Your task to perform on an android device: turn off priority inbox in the gmail app Image 0: 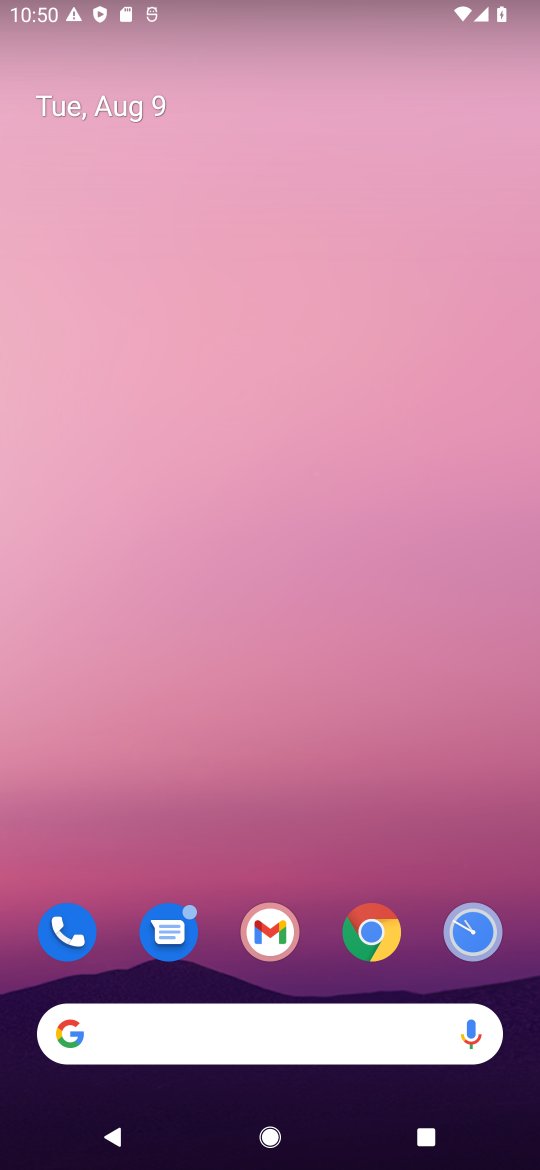
Step 0: drag from (247, 915) to (164, 2)
Your task to perform on an android device: turn off priority inbox in the gmail app Image 1: 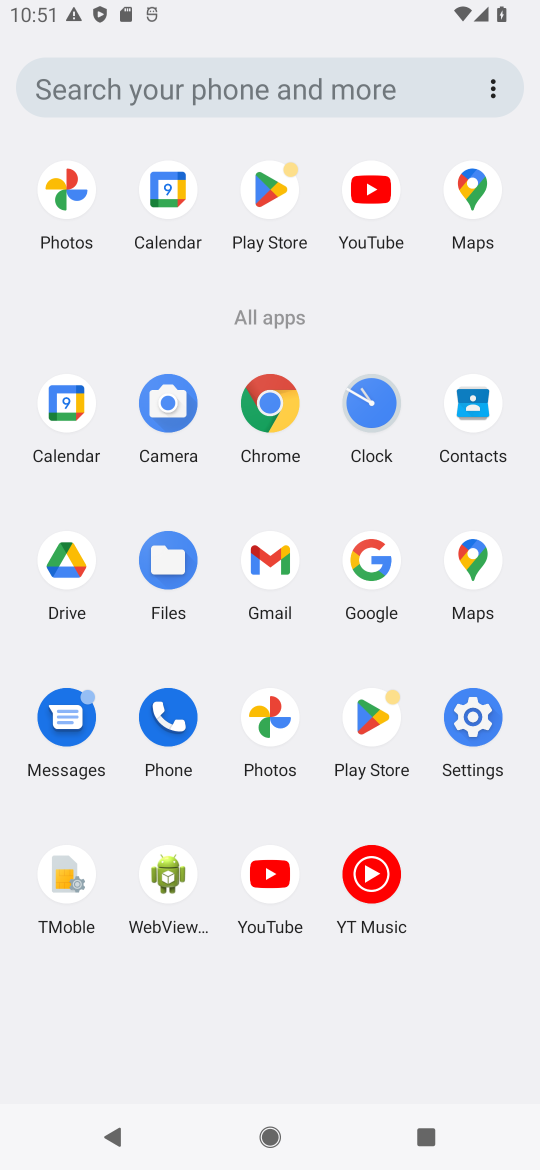
Step 1: click (279, 592)
Your task to perform on an android device: turn off priority inbox in the gmail app Image 2: 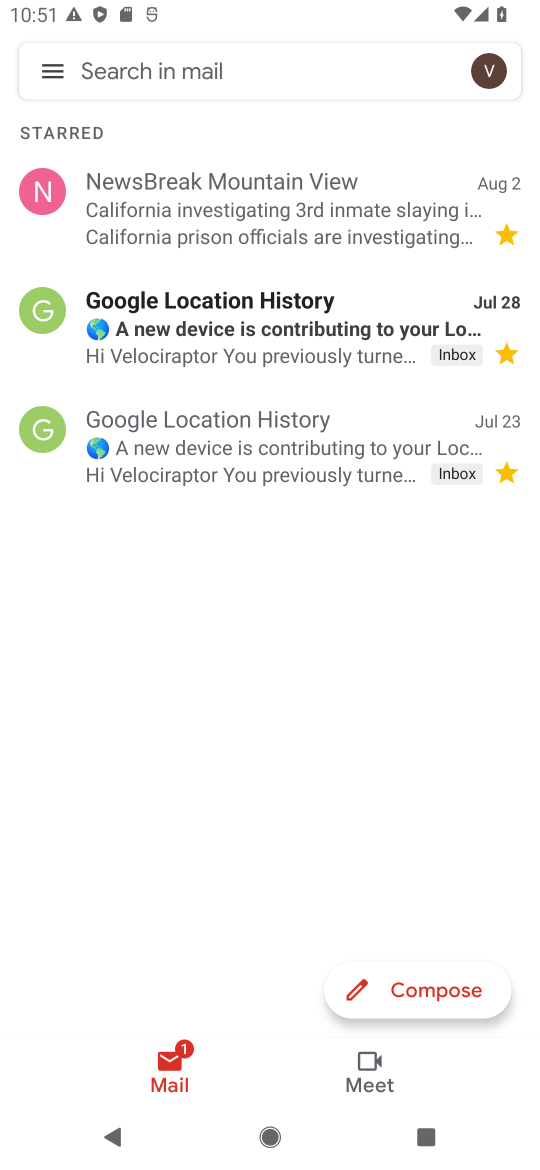
Step 2: click (58, 71)
Your task to perform on an android device: turn off priority inbox in the gmail app Image 3: 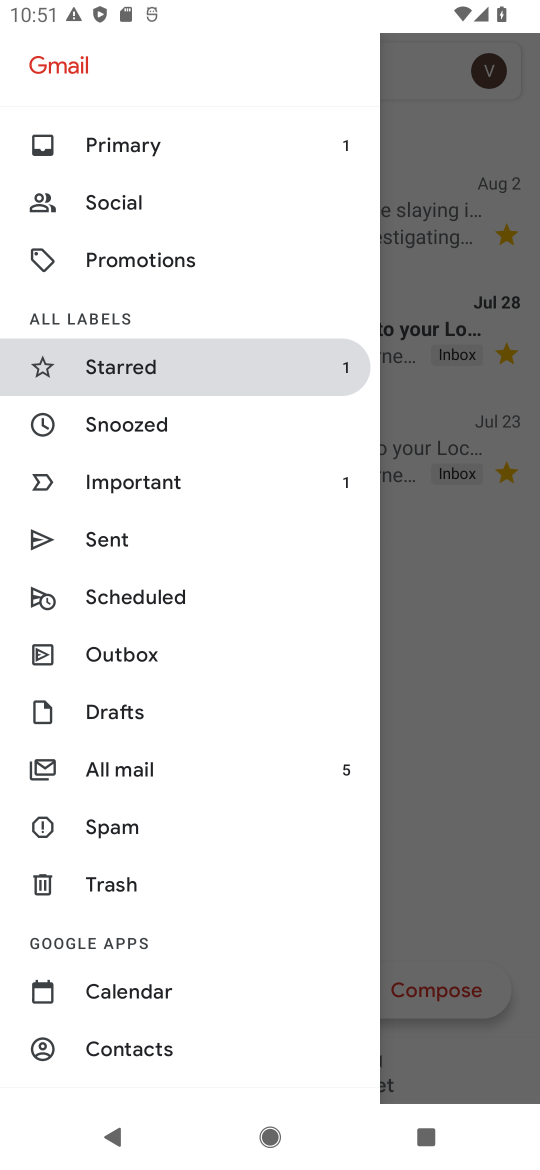
Step 3: drag from (107, 963) to (204, 114)
Your task to perform on an android device: turn off priority inbox in the gmail app Image 4: 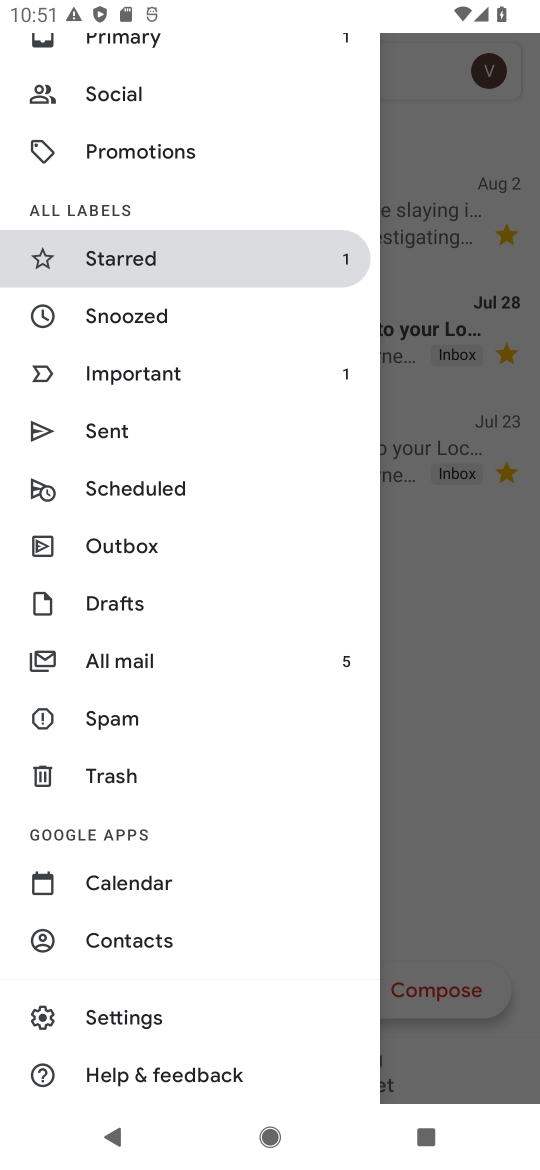
Step 4: click (126, 1026)
Your task to perform on an android device: turn off priority inbox in the gmail app Image 5: 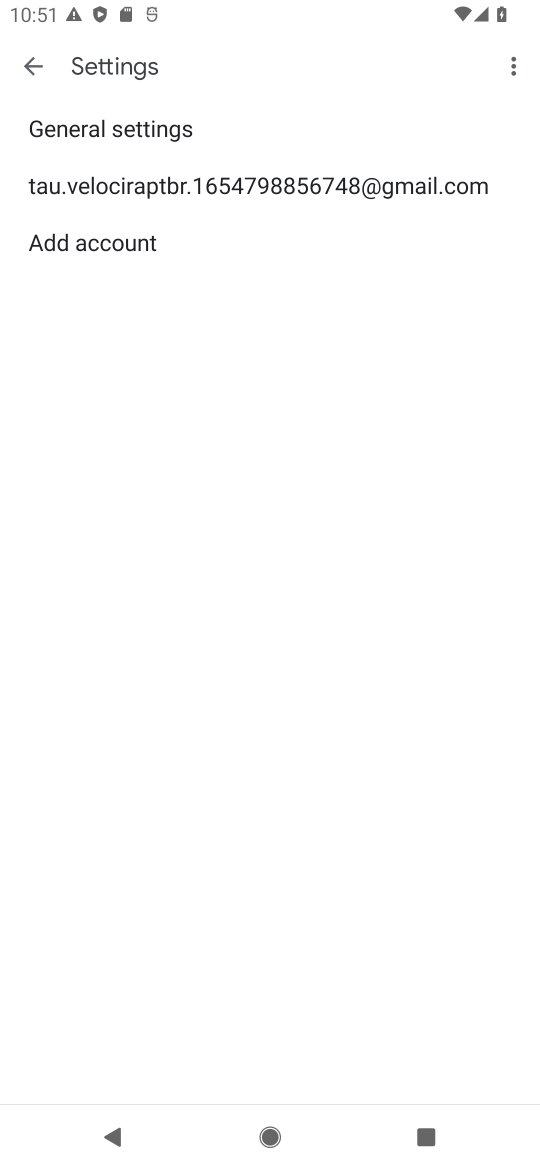
Step 5: click (179, 188)
Your task to perform on an android device: turn off priority inbox in the gmail app Image 6: 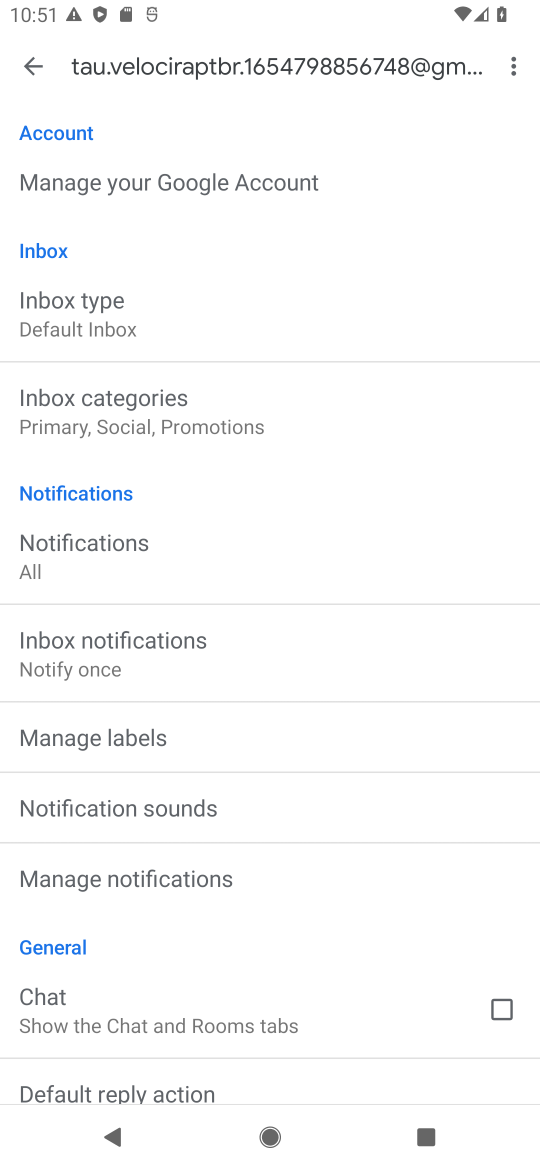
Step 6: click (153, 332)
Your task to perform on an android device: turn off priority inbox in the gmail app Image 7: 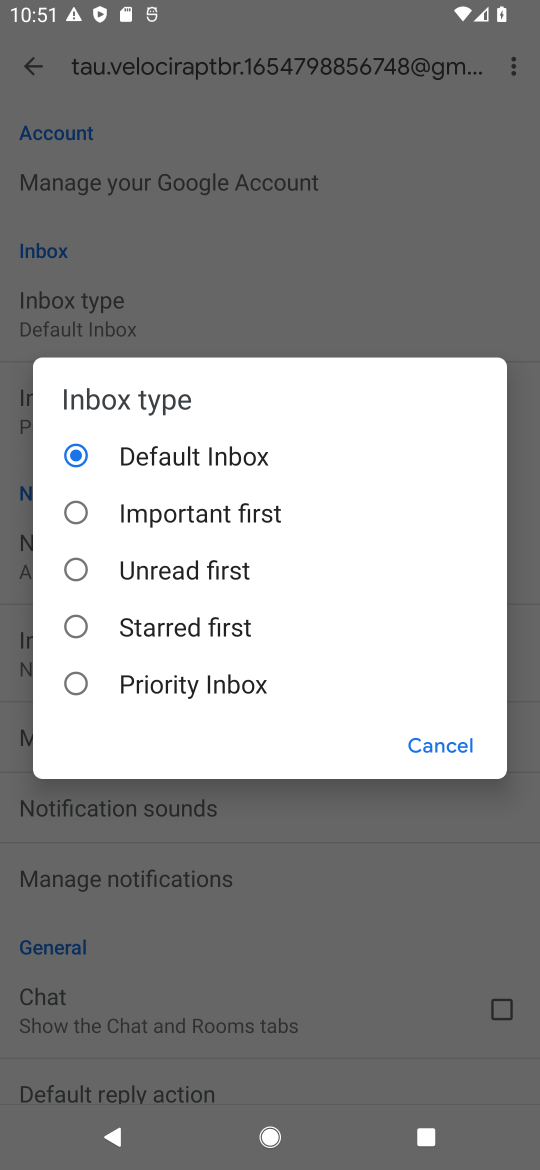
Step 7: click (205, 694)
Your task to perform on an android device: turn off priority inbox in the gmail app Image 8: 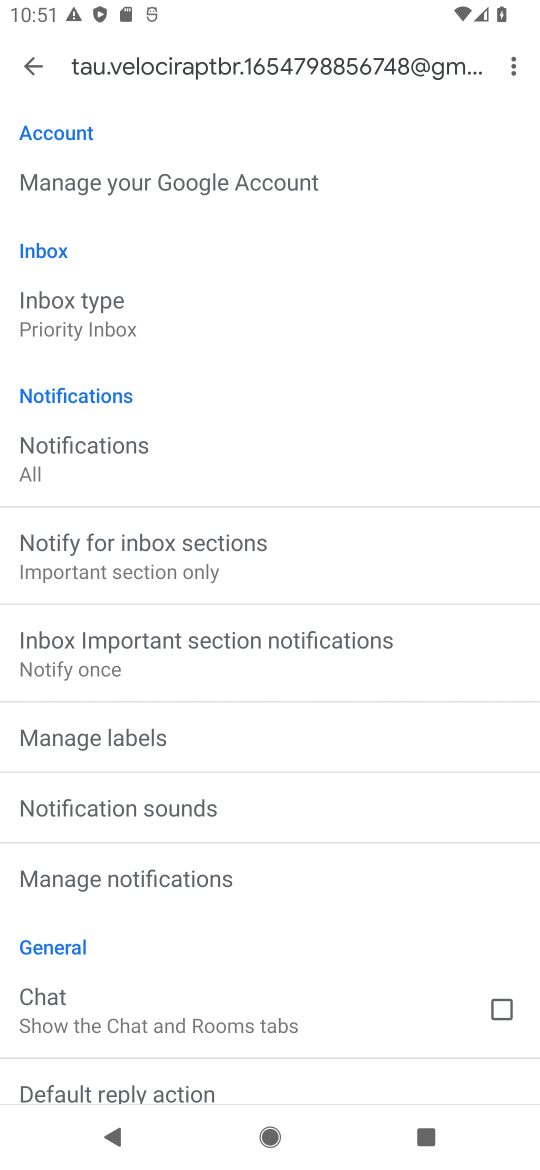
Step 8: task complete